Your task to perform on an android device: What is the recent news? Image 0: 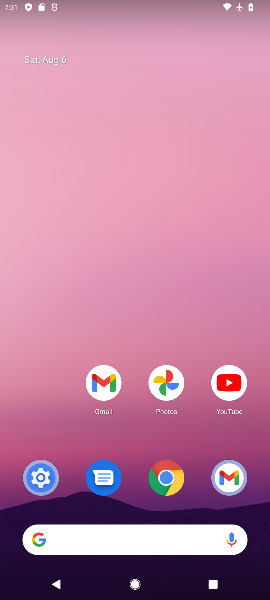
Step 0: press home button
Your task to perform on an android device: What is the recent news? Image 1: 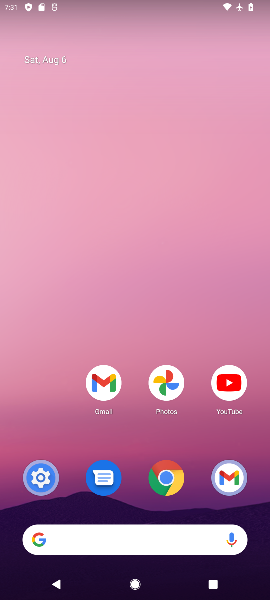
Step 1: click (30, 531)
Your task to perform on an android device: What is the recent news? Image 2: 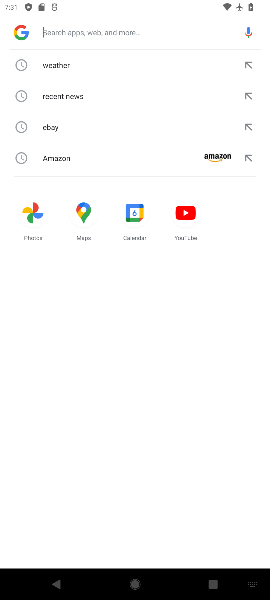
Step 2: click (58, 97)
Your task to perform on an android device: What is the recent news? Image 3: 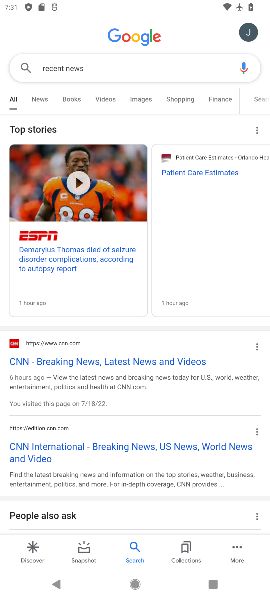
Step 3: task complete